Your task to perform on an android device: Go to sound settings Image 0: 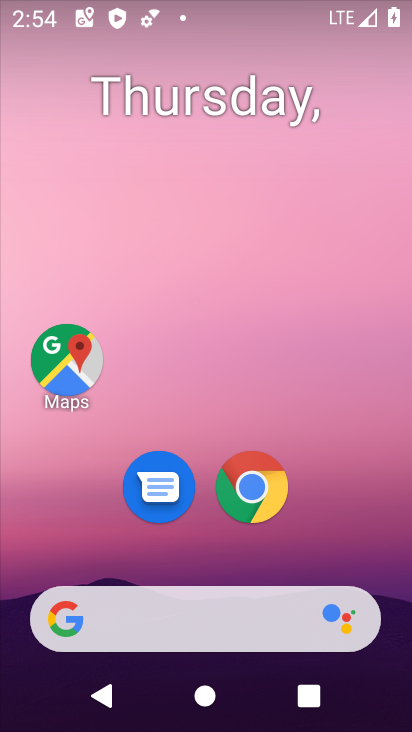
Step 0: drag from (328, 483) to (265, 24)
Your task to perform on an android device: Go to sound settings Image 1: 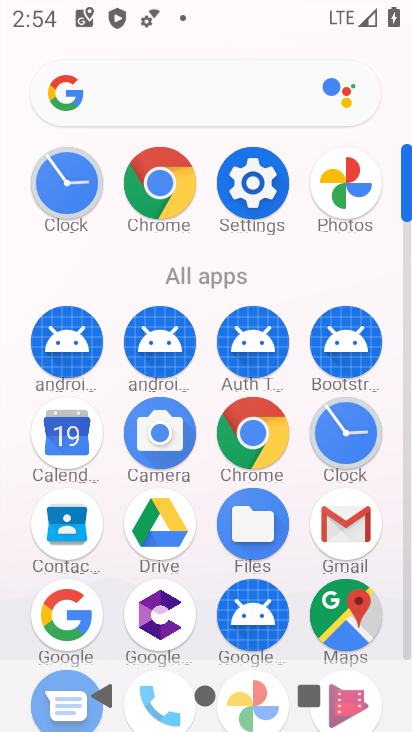
Step 1: click (227, 199)
Your task to perform on an android device: Go to sound settings Image 2: 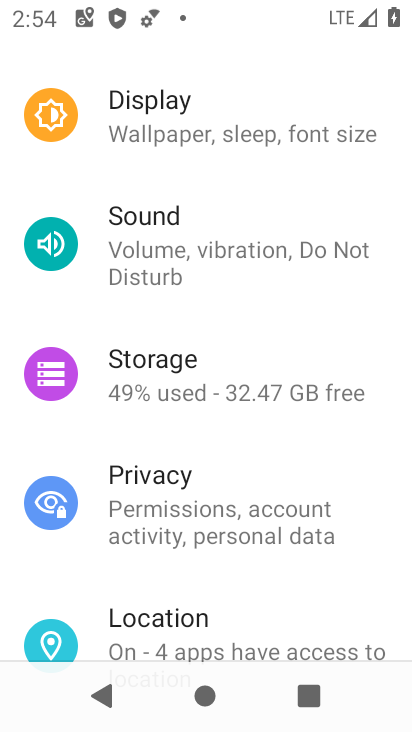
Step 2: click (205, 272)
Your task to perform on an android device: Go to sound settings Image 3: 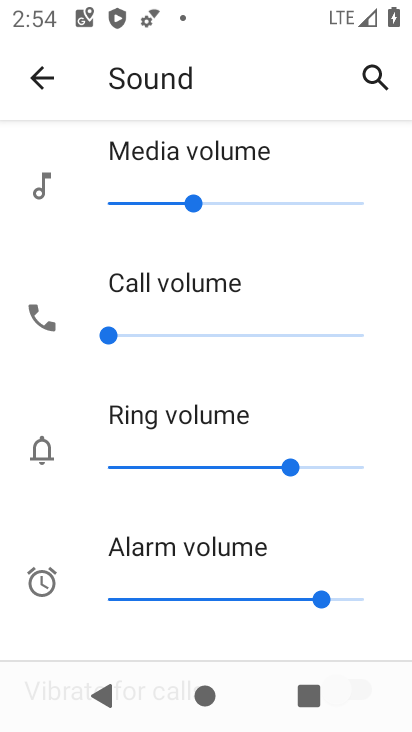
Step 3: task complete